Your task to perform on an android device: choose inbox layout in the gmail app Image 0: 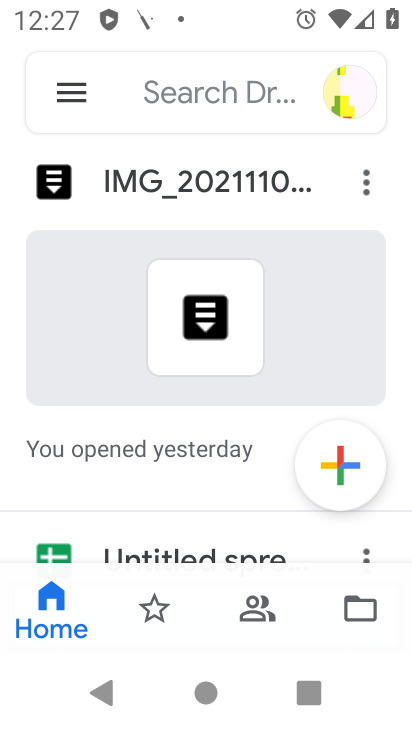
Step 0: press home button
Your task to perform on an android device: choose inbox layout in the gmail app Image 1: 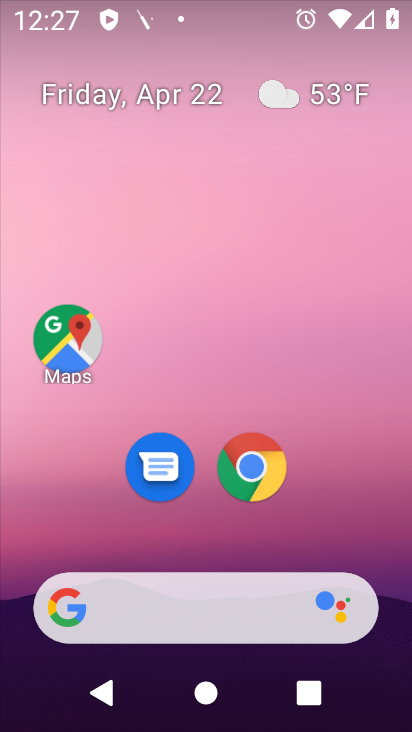
Step 1: drag from (346, 541) to (340, 128)
Your task to perform on an android device: choose inbox layout in the gmail app Image 2: 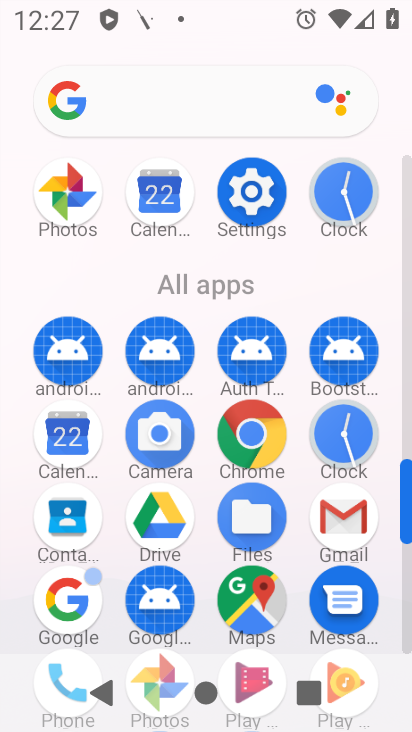
Step 2: click (406, 638)
Your task to perform on an android device: choose inbox layout in the gmail app Image 3: 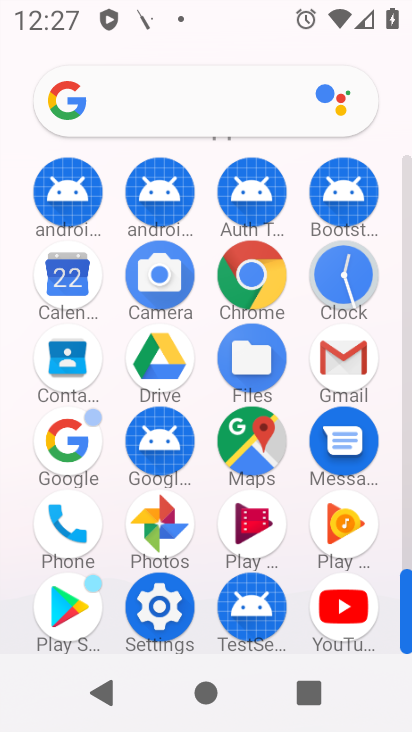
Step 3: click (343, 360)
Your task to perform on an android device: choose inbox layout in the gmail app Image 4: 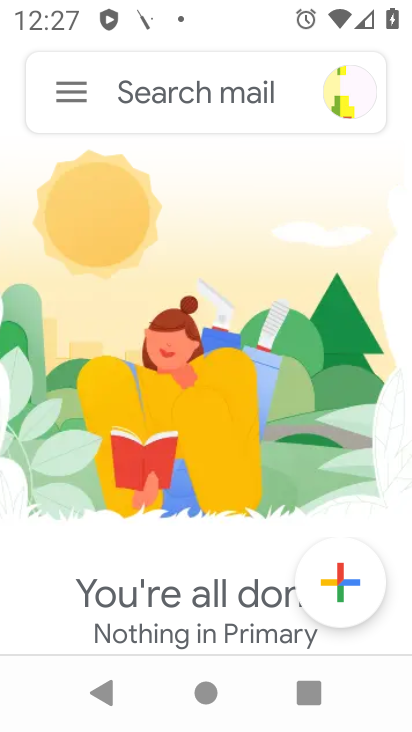
Step 4: click (72, 86)
Your task to perform on an android device: choose inbox layout in the gmail app Image 5: 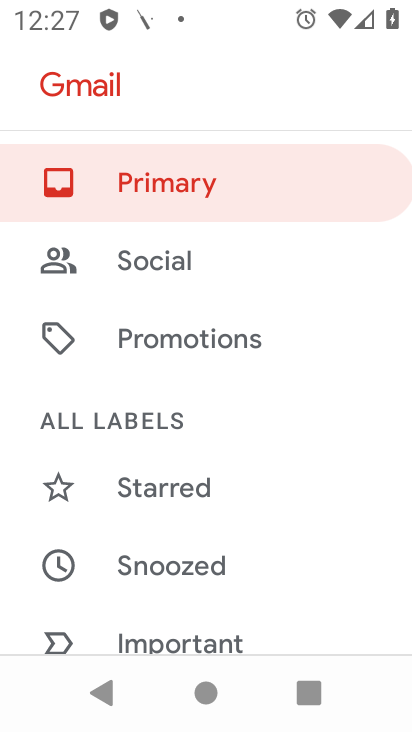
Step 5: drag from (280, 565) to (307, 283)
Your task to perform on an android device: choose inbox layout in the gmail app Image 6: 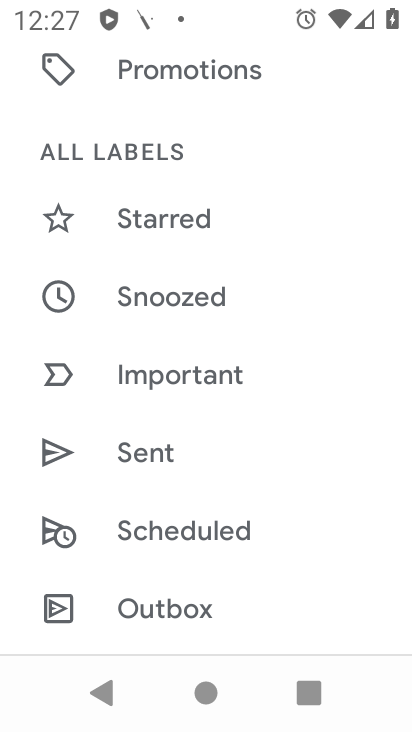
Step 6: drag from (325, 551) to (348, 304)
Your task to perform on an android device: choose inbox layout in the gmail app Image 7: 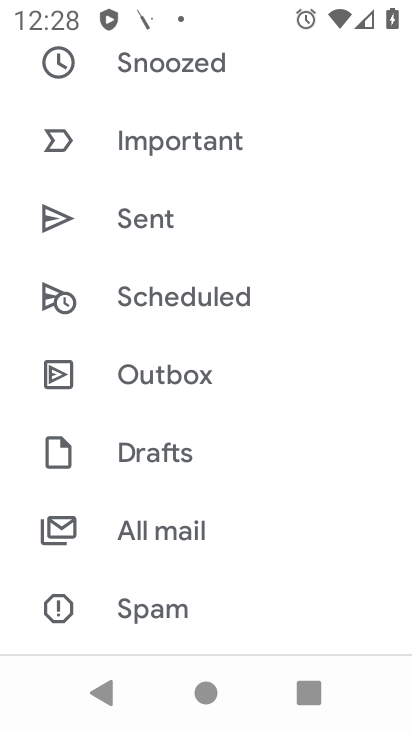
Step 7: drag from (320, 538) to (346, 268)
Your task to perform on an android device: choose inbox layout in the gmail app Image 8: 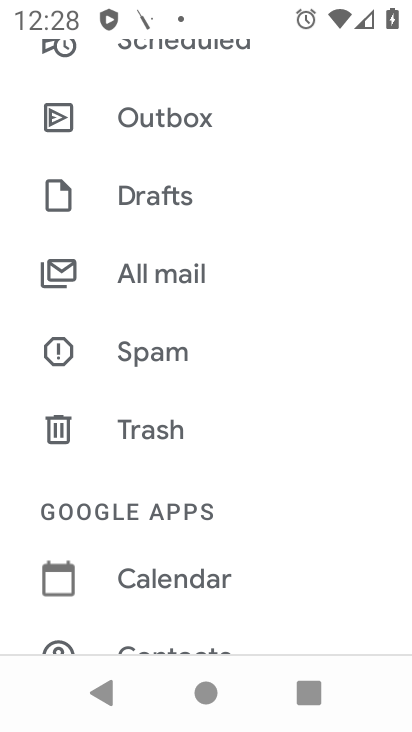
Step 8: drag from (316, 457) to (324, 205)
Your task to perform on an android device: choose inbox layout in the gmail app Image 9: 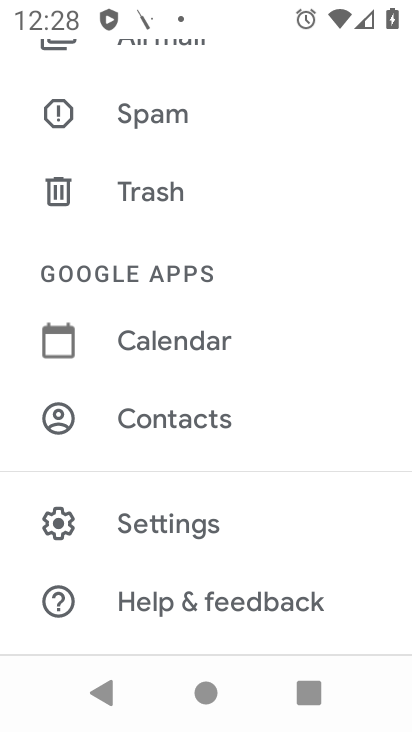
Step 9: click (144, 526)
Your task to perform on an android device: choose inbox layout in the gmail app Image 10: 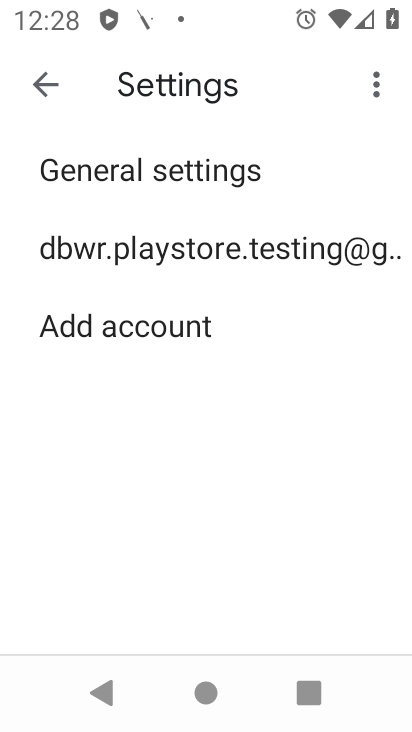
Step 10: click (191, 240)
Your task to perform on an android device: choose inbox layout in the gmail app Image 11: 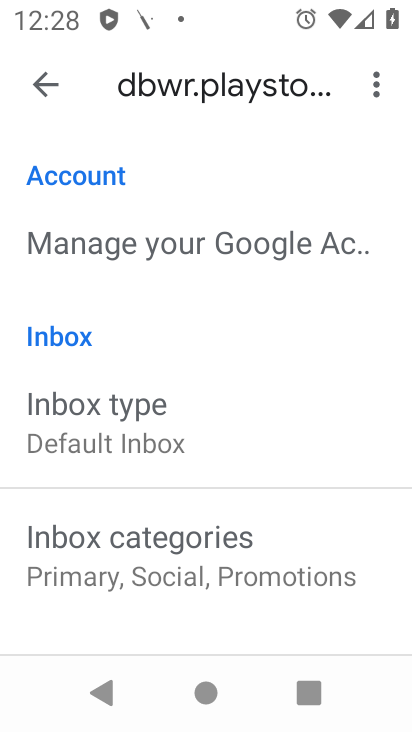
Step 11: click (119, 431)
Your task to perform on an android device: choose inbox layout in the gmail app Image 12: 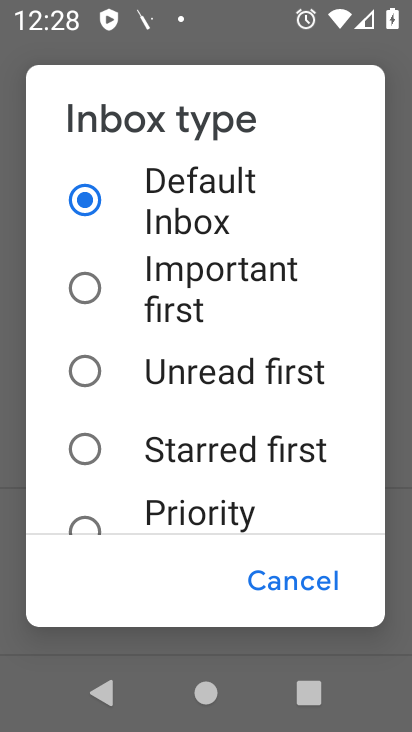
Step 12: drag from (173, 464) to (182, 262)
Your task to perform on an android device: choose inbox layout in the gmail app Image 13: 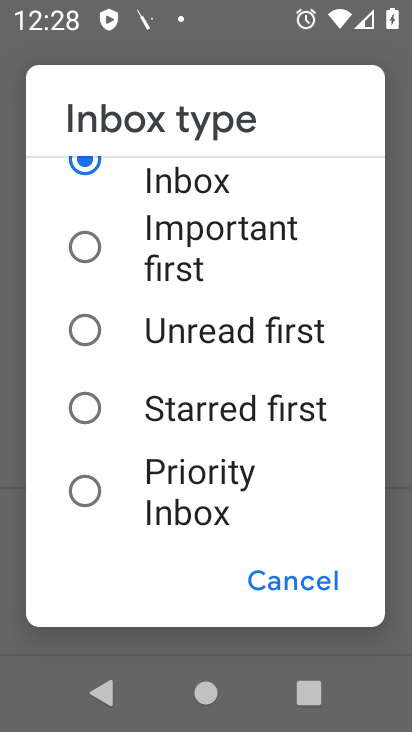
Step 13: click (81, 406)
Your task to perform on an android device: choose inbox layout in the gmail app Image 14: 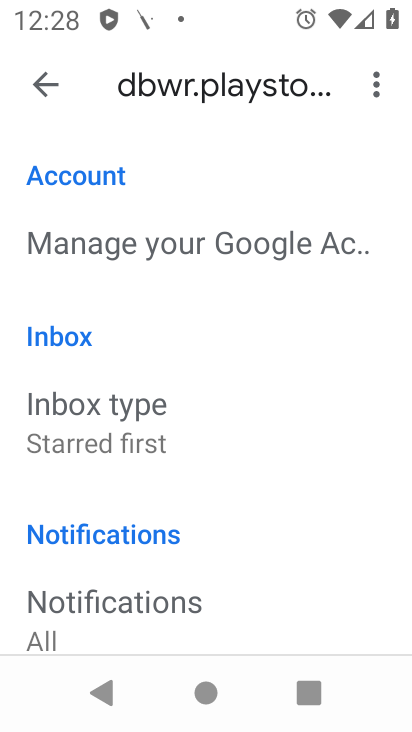
Step 14: task complete